Your task to perform on an android device: turn on improve location accuracy Image 0: 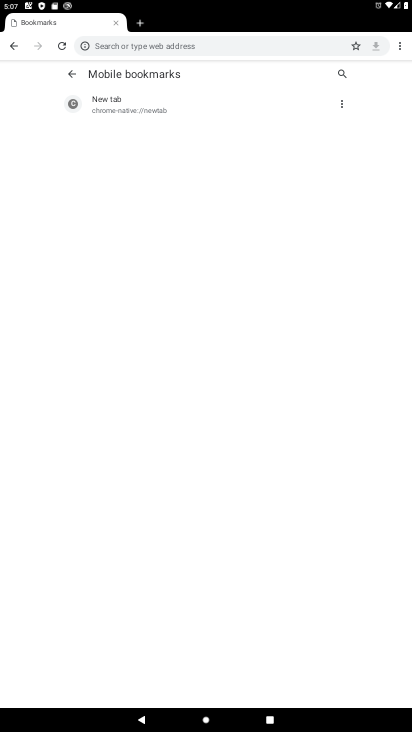
Step 0: press home button
Your task to perform on an android device: turn on improve location accuracy Image 1: 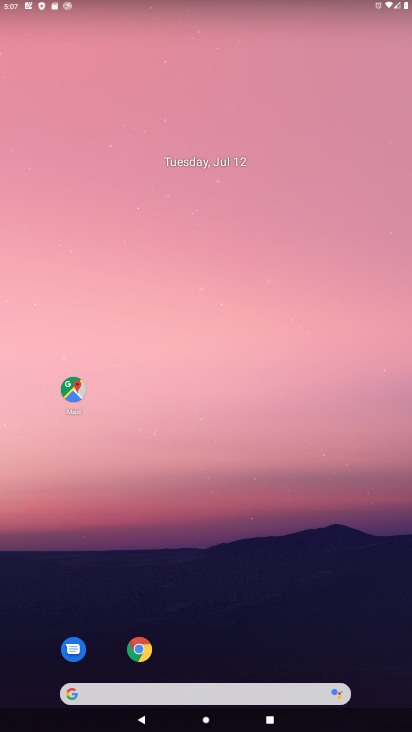
Step 1: drag from (206, 694) to (230, 138)
Your task to perform on an android device: turn on improve location accuracy Image 2: 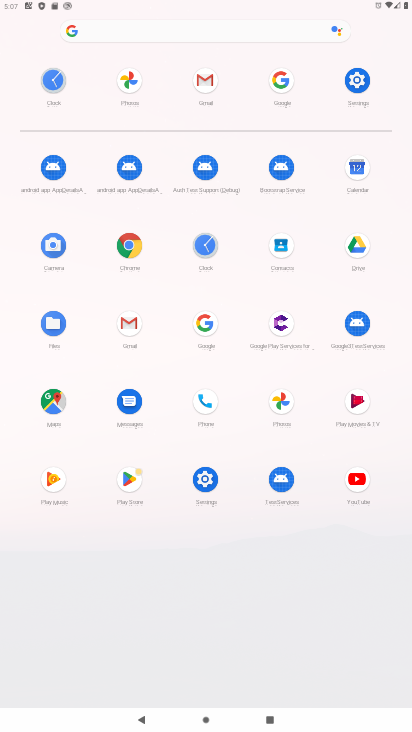
Step 2: click (359, 81)
Your task to perform on an android device: turn on improve location accuracy Image 3: 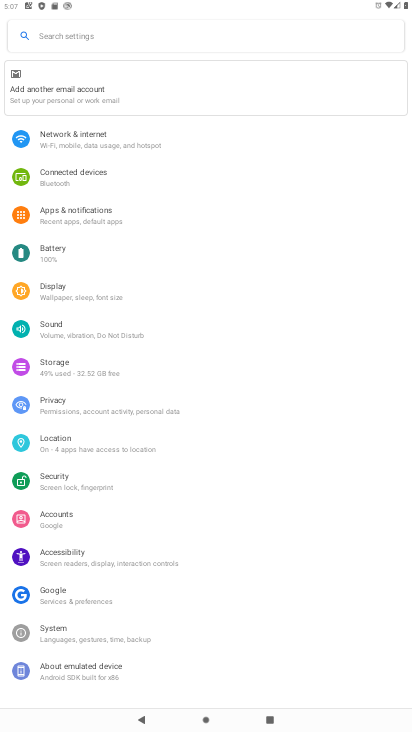
Step 3: click (63, 444)
Your task to perform on an android device: turn on improve location accuracy Image 4: 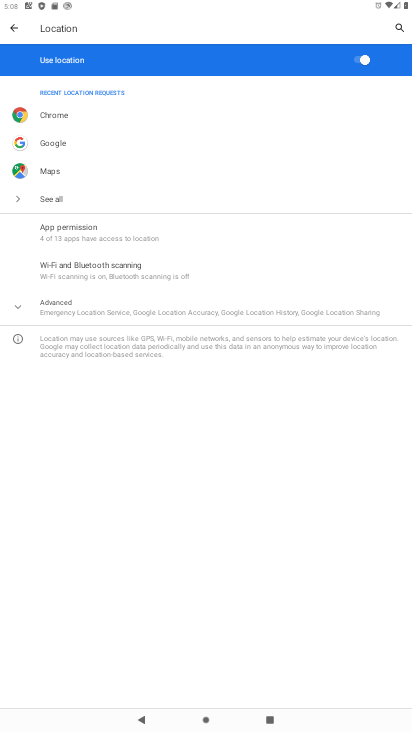
Step 4: click (104, 308)
Your task to perform on an android device: turn on improve location accuracy Image 5: 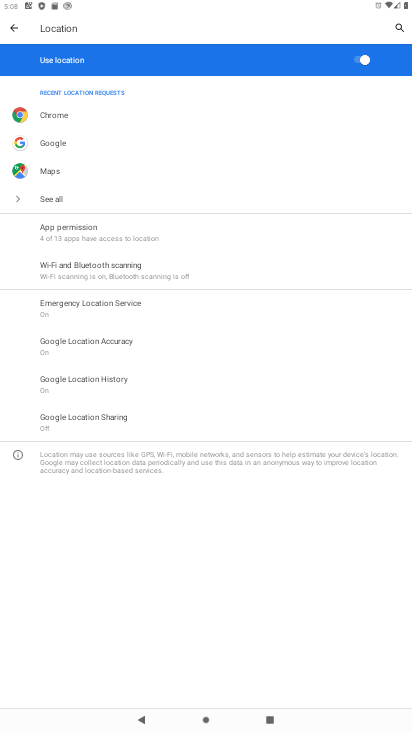
Step 5: click (124, 341)
Your task to perform on an android device: turn on improve location accuracy Image 6: 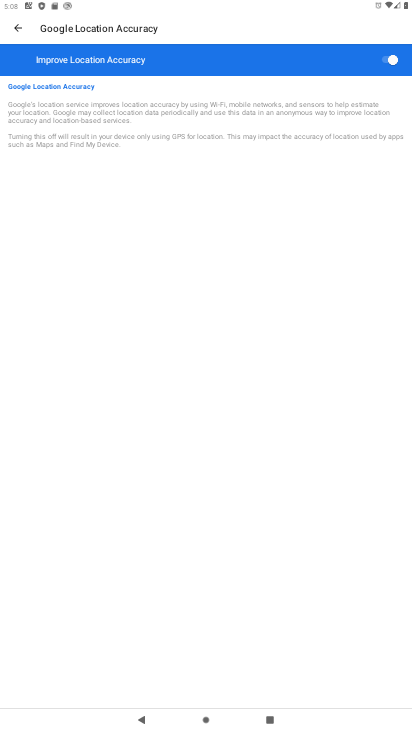
Step 6: task complete